Your task to perform on an android device: change your default location settings in chrome Image 0: 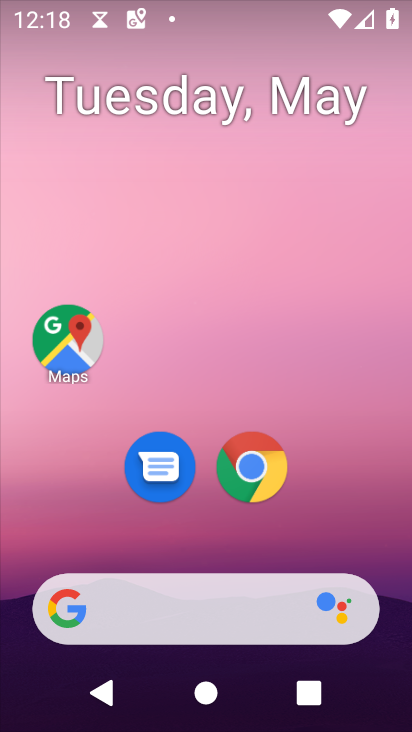
Step 0: click (244, 464)
Your task to perform on an android device: change your default location settings in chrome Image 1: 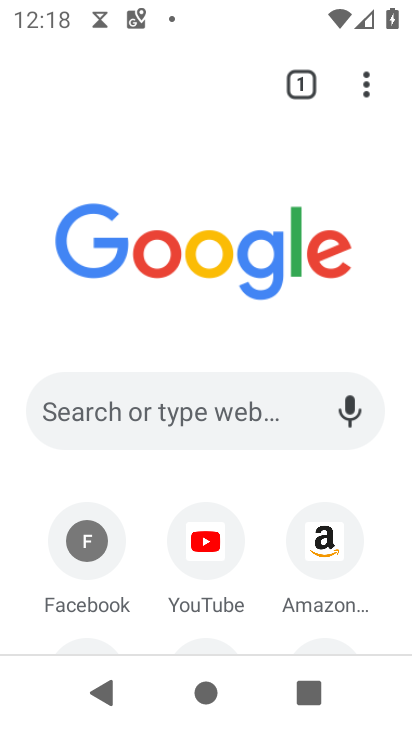
Step 1: click (371, 81)
Your task to perform on an android device: change your default location settings in chrome Image 2: 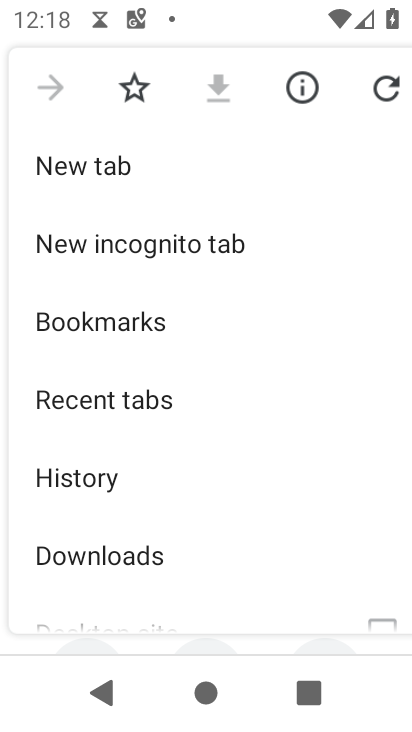
Step 2: drag from (204, 511) to (211, 82)
Your task to perform on an android device: change your default location settings in chrome Image 3: 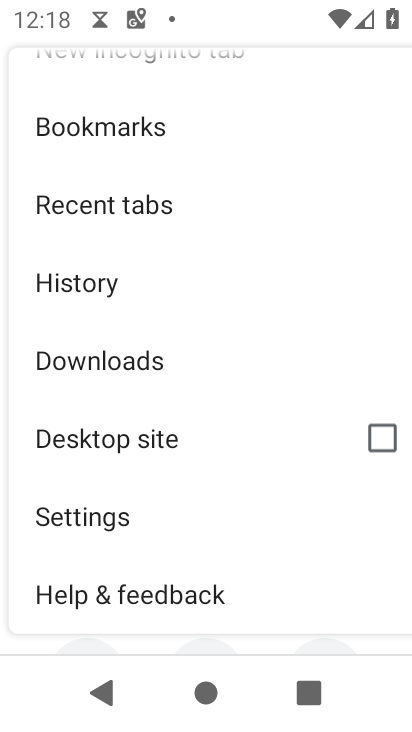
Step 3: click (92, 520)
Your task to perform on an android device: change your default location settings in chrome Image 4: 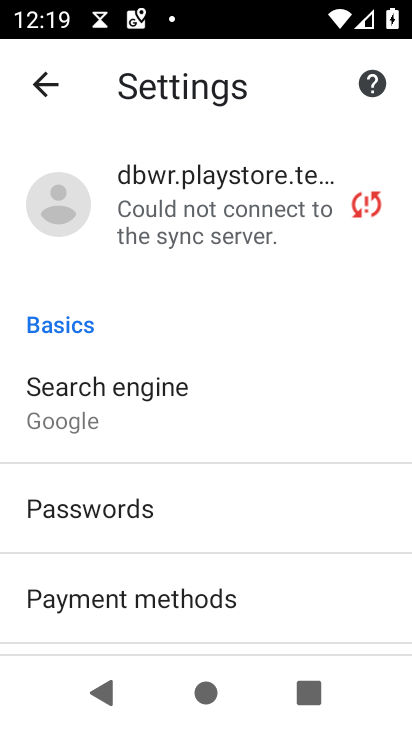
Step 4: drag from (255, 528) to (231, 209)
Your task to perform on an android device: change your default location settings in chrome Image 5: 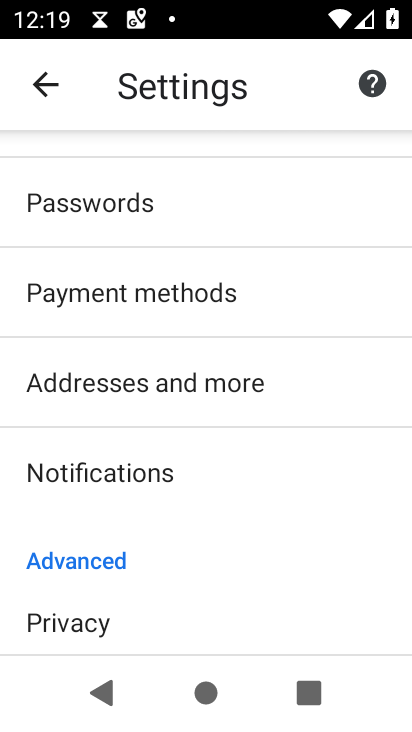
Step 5: drag from (218, 606) to (188, 326)
Your task to perform on an android device: change your default location settings in chrome Image 6: 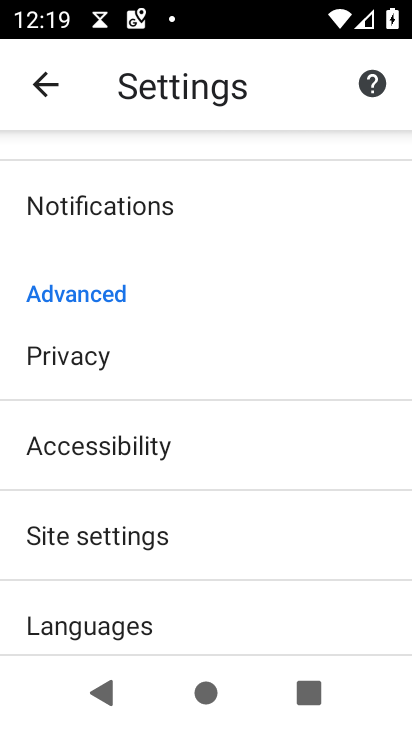
Step 6: click (101, 540)
Your task to perform on an android device: change your default location settings in chrome Image 7: 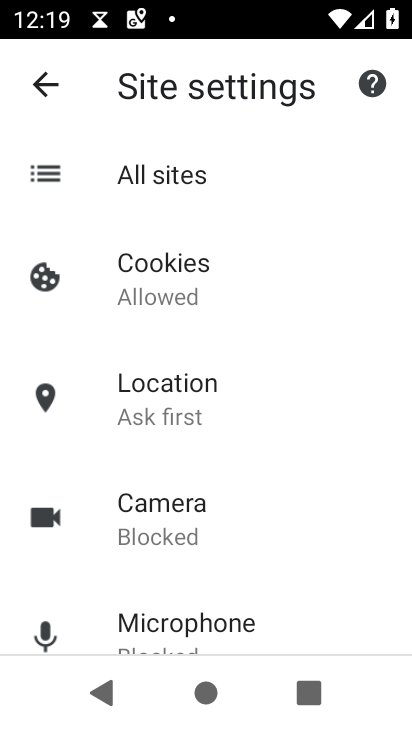
Step 7: drag from (238, 577) to (247, 318)
Your task to perform on an android device: change your default location settings in chrome Image 8: 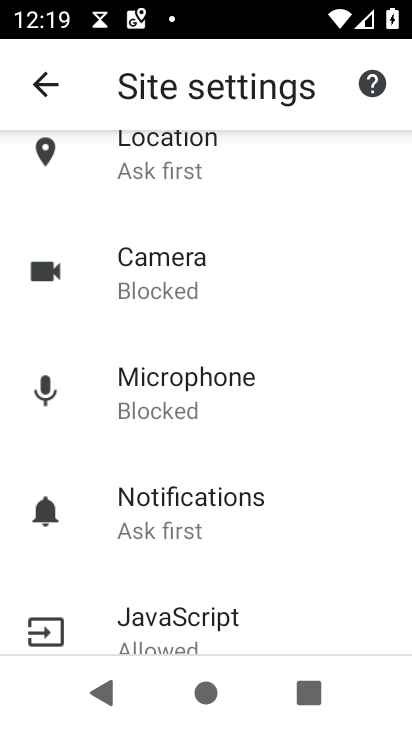
Step 8: drag from (223, 586) to (256, 674)
Your task to perform on an android device: change your default location settings in chrome Image 9: 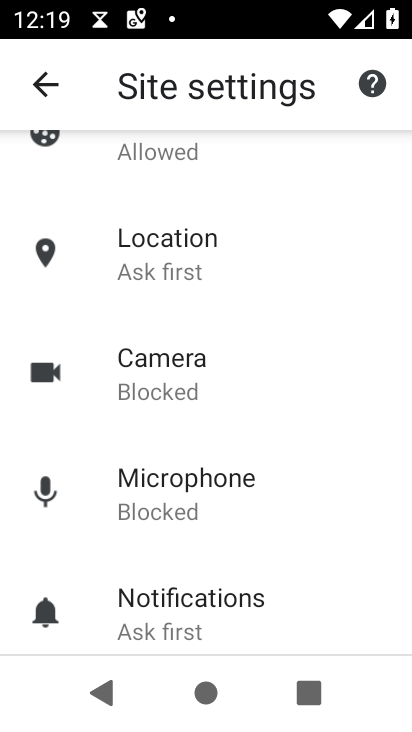
Step 9: click (184, 251)
Your task to perform on an android device: change your default location settings in chrome Image 10: 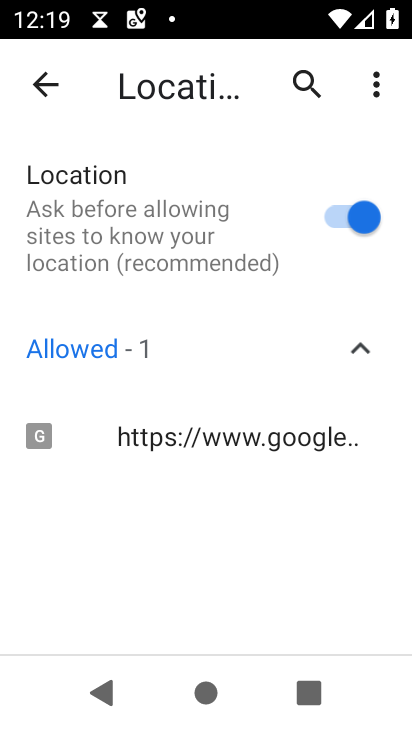
Step 10: click (333, 216)
Your task to perform on an android device: change your default location settings in chrome Image 11: 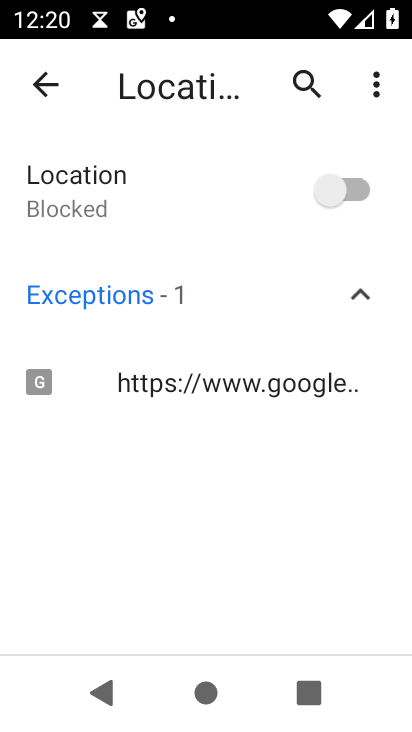
Step 11: task complete